Your task to perform on an android device: turn on airplane mode Image 0: 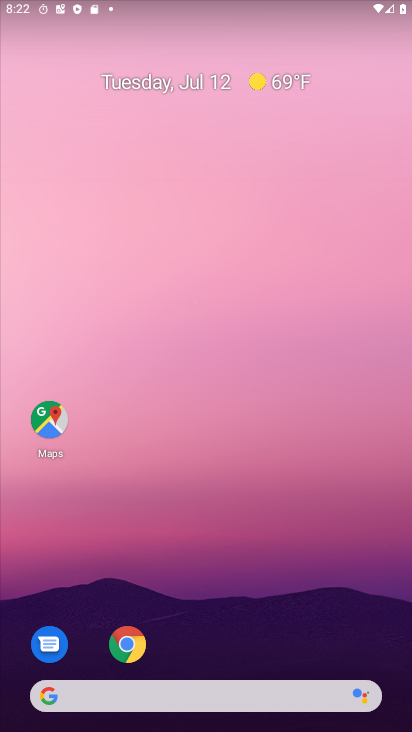
Step 0: drag from (216, 661) to (229, 46)
Your task to perform on an android device: turn on airplane mode Image 1: 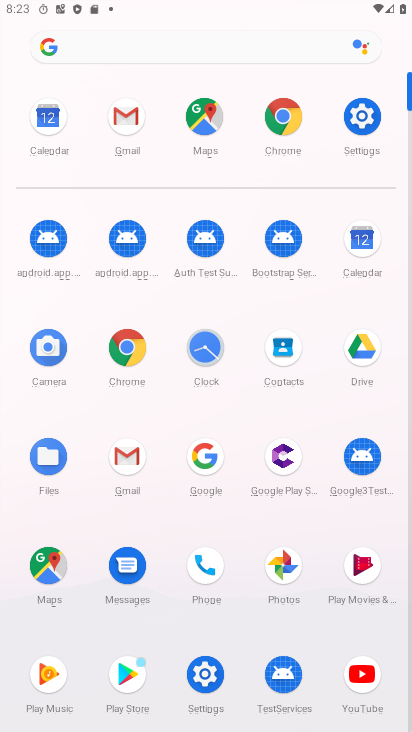
Step 1: drag from (231, 9) to (260, 493)
Your task to perform on an android device: turn on airplane mode Image 2: 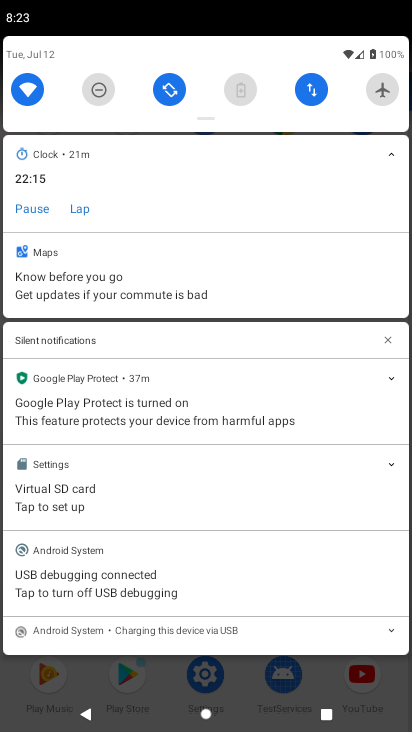
Step 2: click (383, 85)
Your task to perform on an android device: turn on airplane mode Image 3: 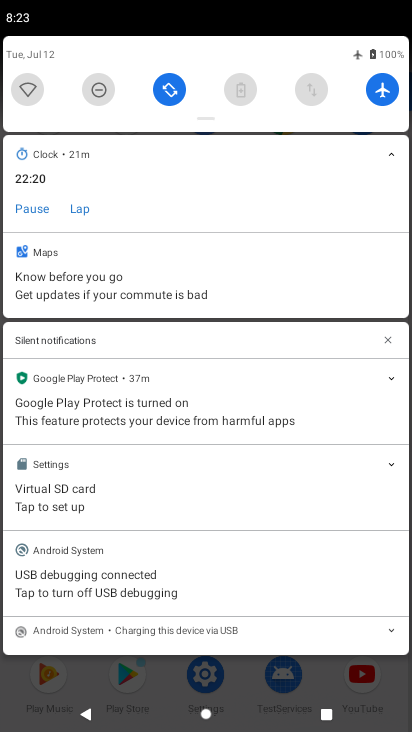
Step 3: task complete